Your task to perform on an android device: Open the stopwatch Image 0: 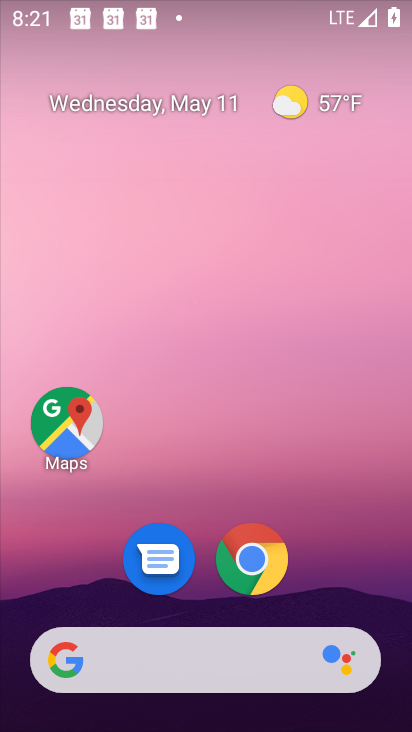
Step 0: press home button
Your task to perform on an android device: Open the stopwatch Image 1: 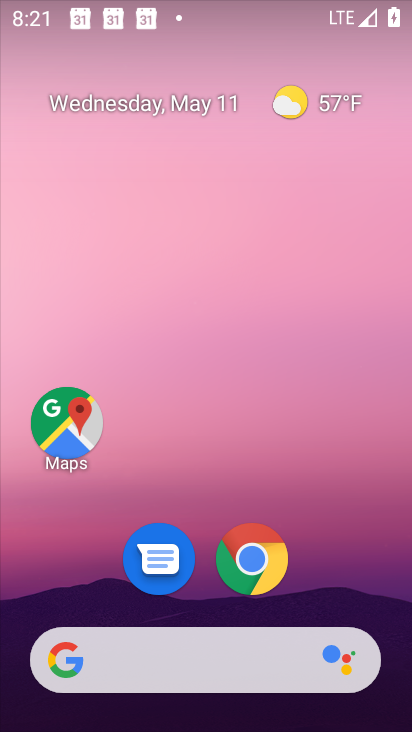
Step 1: drag from (364, 574) to (304, 97)
Your task to perform on an android device: Open the stopwatch Image 2: 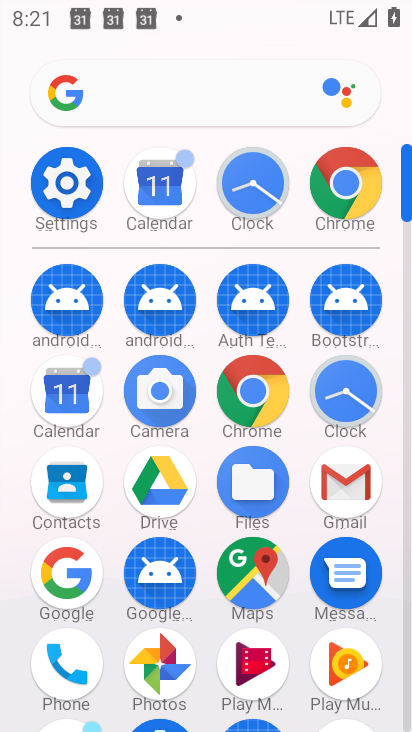
Step 2: click (354, 406)
Your task to perform on an android device: Open the stopwatch Image 3: 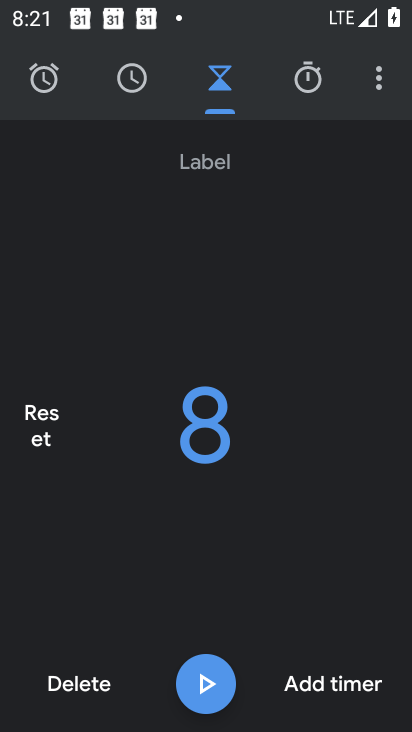
Step 3: click (312, 78)
Your task to perform on an android device: Open the stopwatch Image 4: 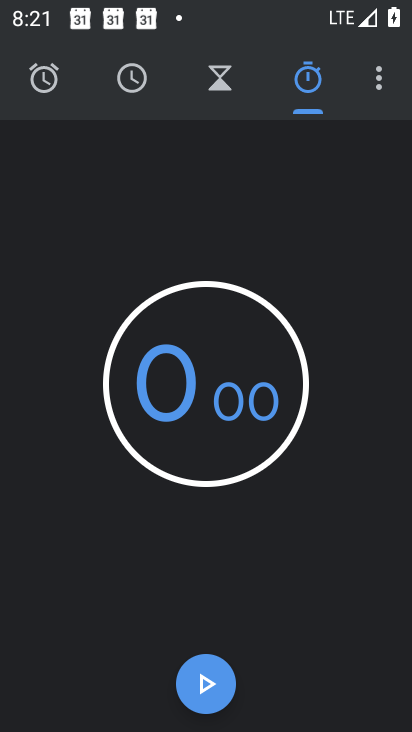
Step 4: task complete